Your task to perform on an android device: Open display settings Image 0: 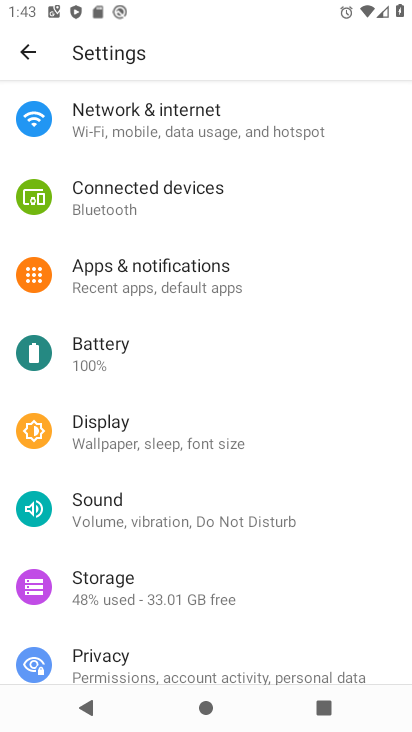
Step 0: click (106, 437)
Your task to perform on an android device: Open display settings Image 1: 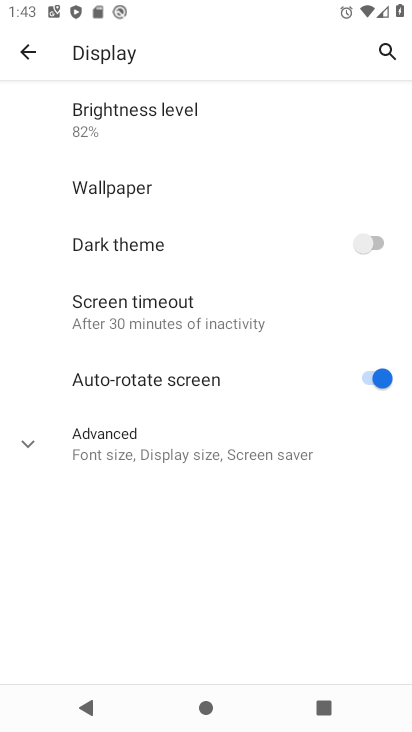
Step 1: task complete